Your task to perform on an android device: turn on the 12-hour format for clock Image 0: 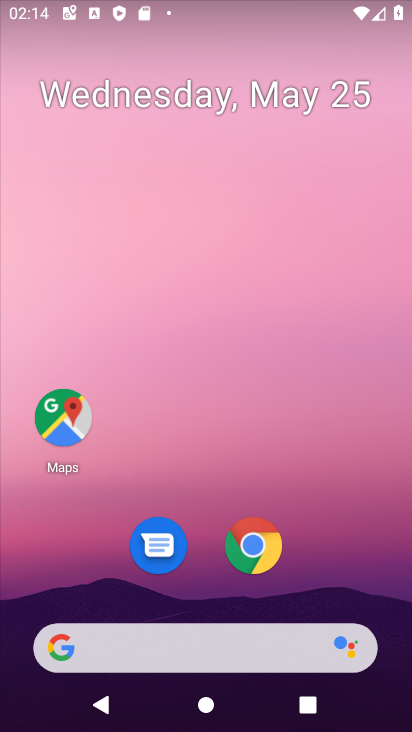
Step 0: drag from (379, 542) to (348, 33)
Your task to perform on an android device: turn on the 12-hour format for clock Image 1: 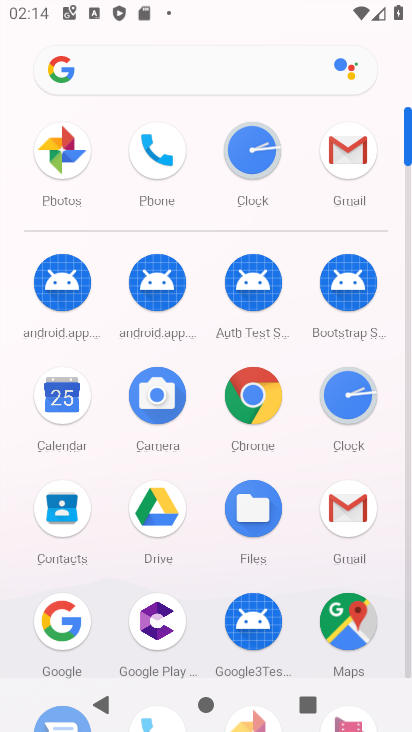
Step 1: click (408, 629)
Your task to perform on an android device: turn on the 12-hour format for clock Image 2: 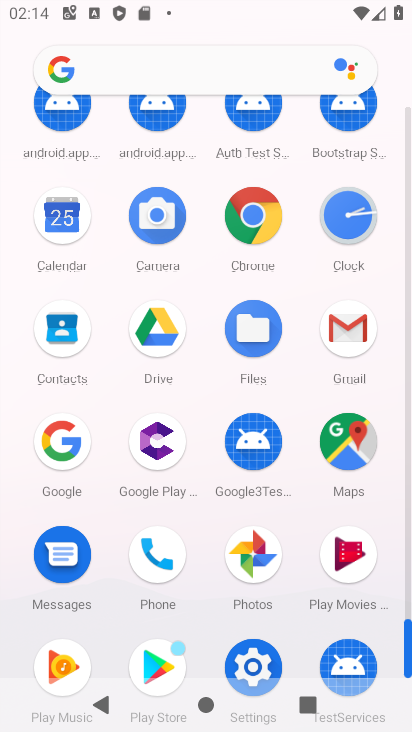
Step 2: click (255, 668)
Your task to perform on an android device: turn on the 12-hour format for clock Image 3: 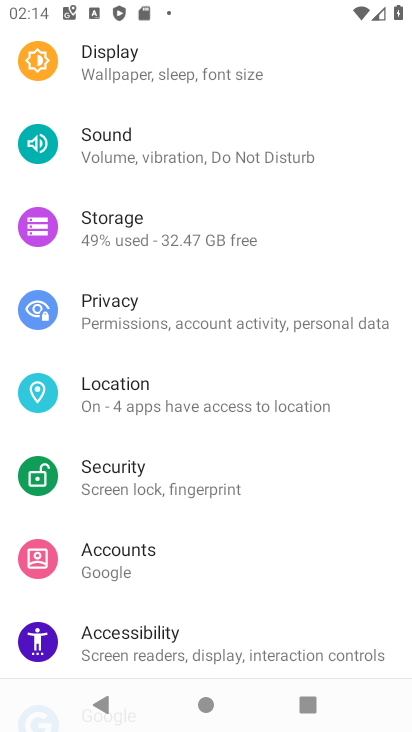
Step 3: drag from (186, 581) to (186, 306)
Your task to perform on an android device: turn on the 12-hour format for clock Image 4: 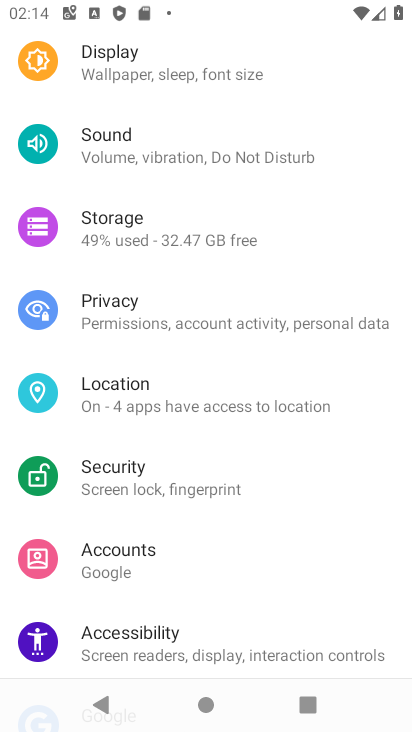
Step 4: press home button
Your task to perform on an android device: turn on the 12-hour format for clock Image 5: 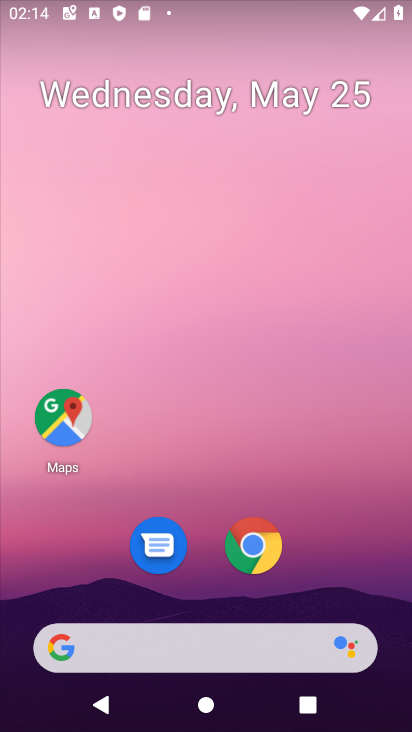
Step 5: drag from (369, 567) to (349, 127)
Your task to perform on an android device: turn on the 12-hour format for clock Image 6: 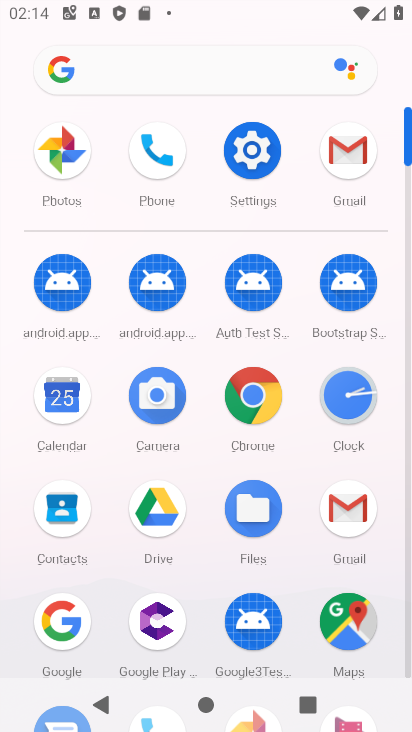
Step 6: click (371, 401)
Your task to perform on an android device: turn on the 12-hour format for clock Image 7: 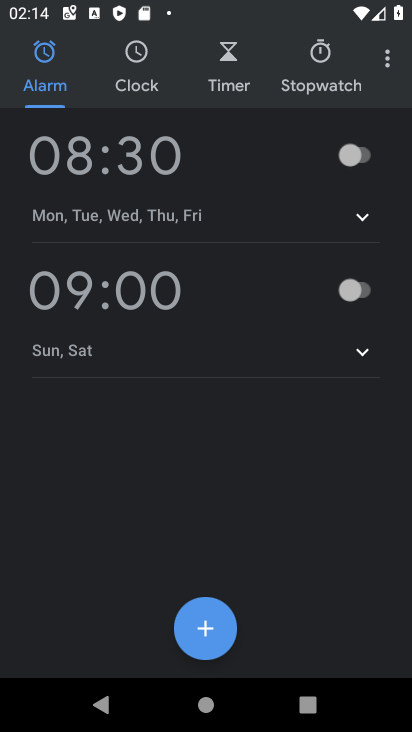
Step 7: click (385, 66)
Your task to perform on an android device: turn on the 12-hour format for clock Image 8: 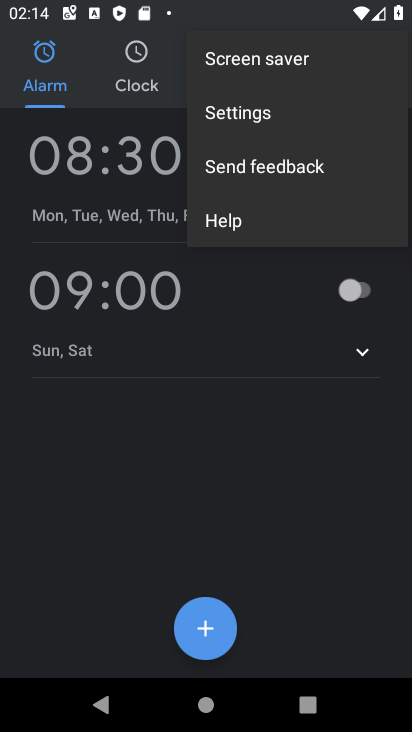
Step 8: click (285, 121)
Your task to perform on an android device: turn on the 12-hour format for clock Image 9: 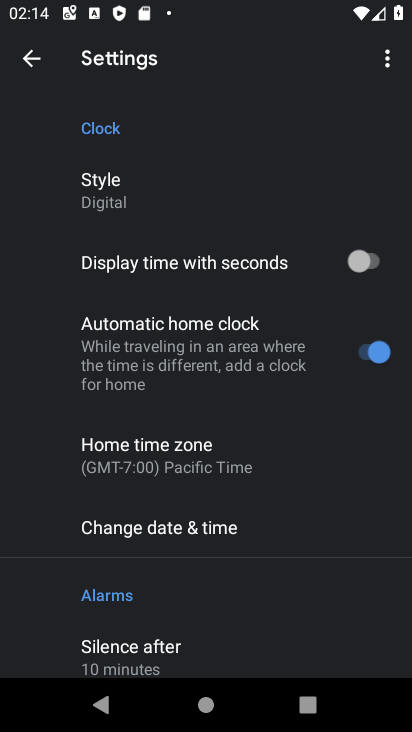
Step 9: click (189, 547)
Your task to perform on an android device: turn on the 12-hour format for clock Image 10: 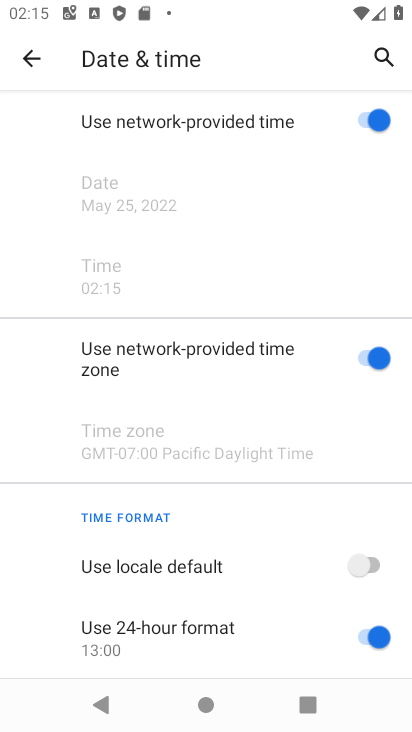
Step 10: click (298, 608)
Your task to perform on an android device: turn on the 12-hour format for clock Image 11: 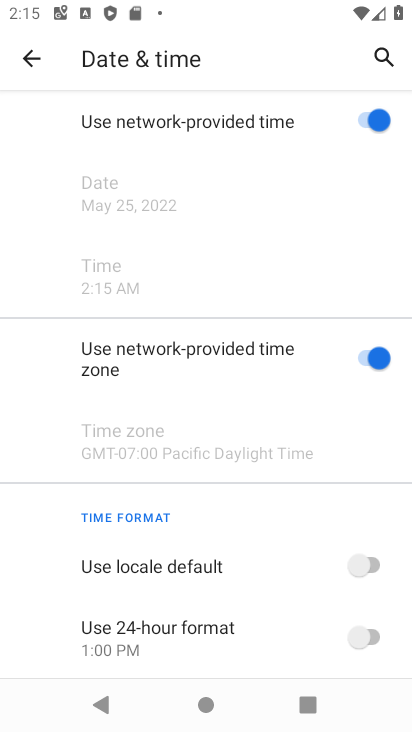
Step 11: task complete